Your task to perform on an android device: Clear the shopping cart on newegg. Search for macbook air on newegg, select the first entry, add it to the cart, then select checkout. Image 0: 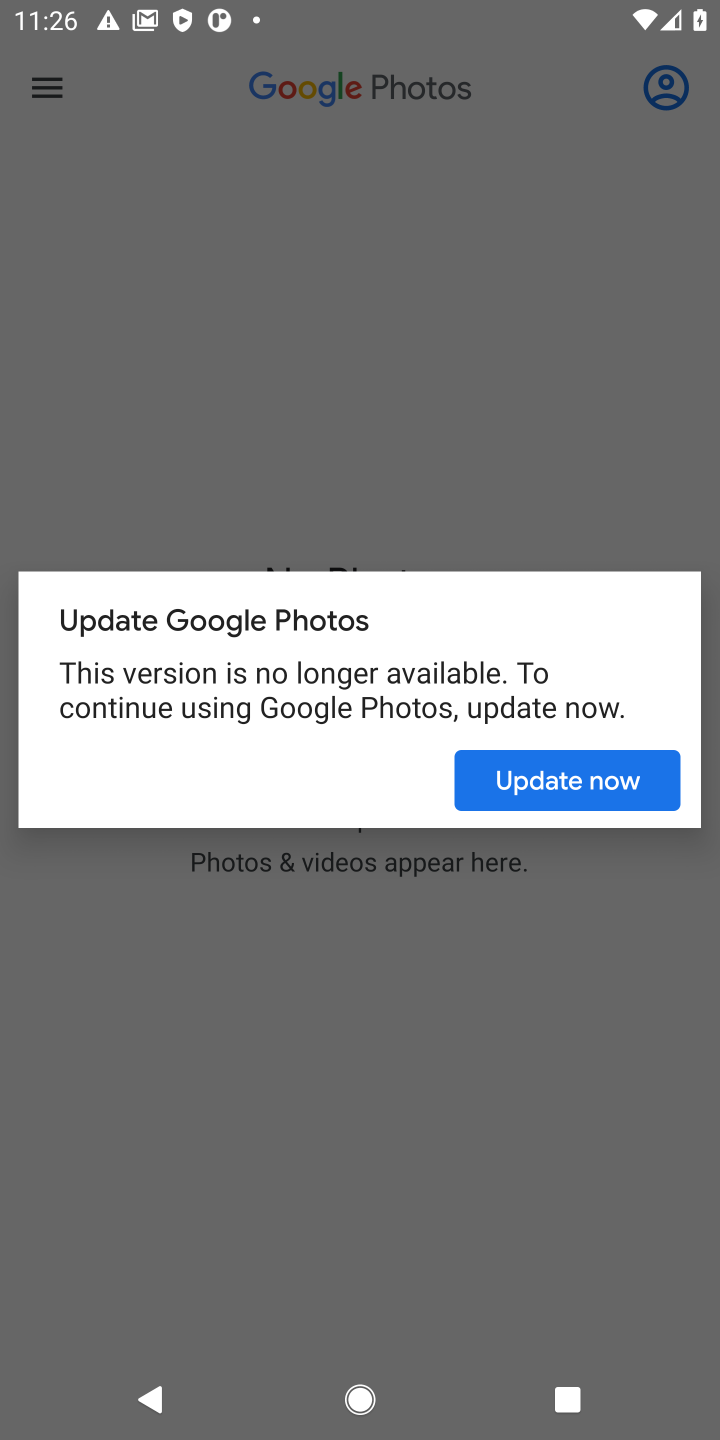
Step 0: press home button
Your task to perform on an android device: Clear the shopping cart on newegg. Search for macbook air on newegg, select the first entry, add it to the cart, then select checkout. Image 1: 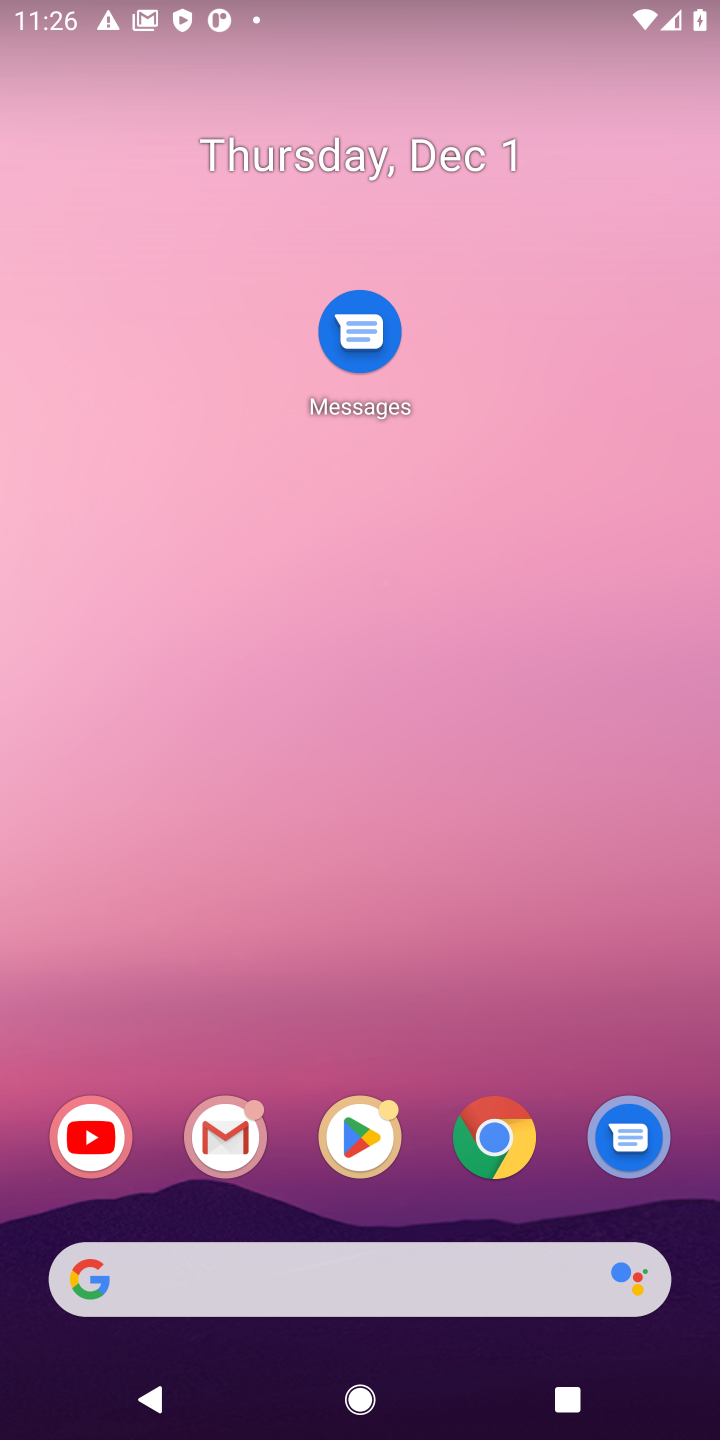
Step 1: drag from (383, 873) to (383, 452)
Your task to perform on an android device: Clear the shopping cart on newegg. Search for macbook air on newegg, select the first entry, add it to the cart, then select checkout. Image 2: 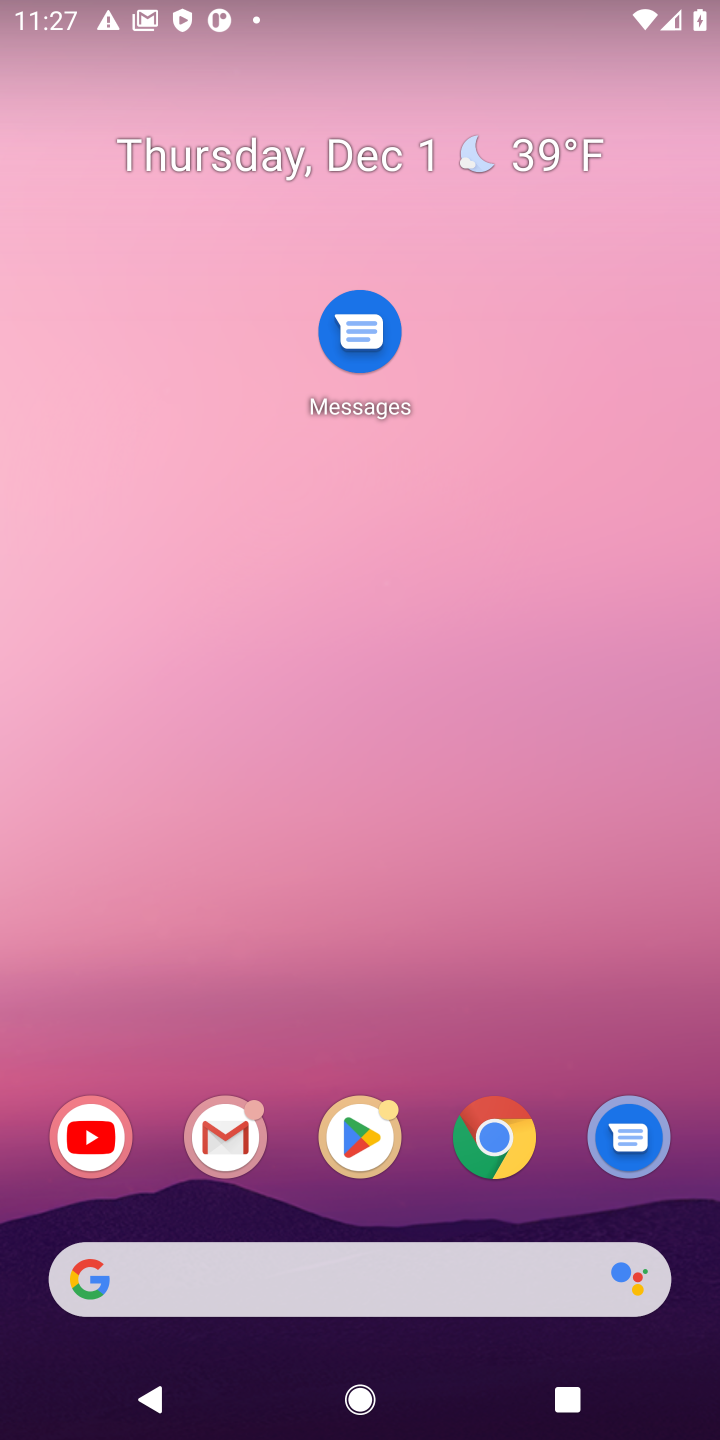
Step 2: drag from (358, 776) to (333, 441)
Your task to perform on an android device: Clear the shopping cart on newegg. Search for macbook air on newegg, select the first entry, add it to the cart, then select checkout. Image 3: 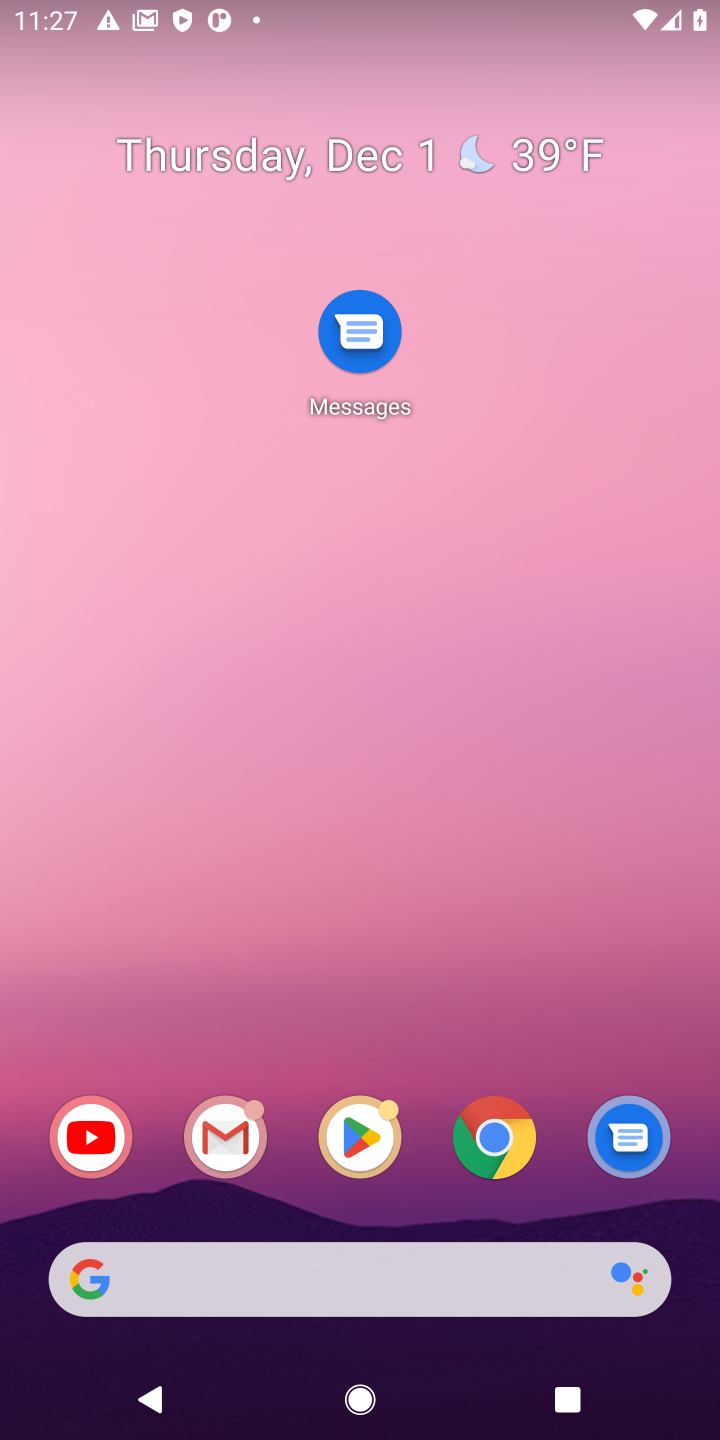
Step 3: drag from (310, 521) to (300, 329)
Your task to perform on an android device: Clear the shopping cart on newegg. Search for macbook air on newegg, select the first entry, add it to the cart, then select checkout. Image 4: 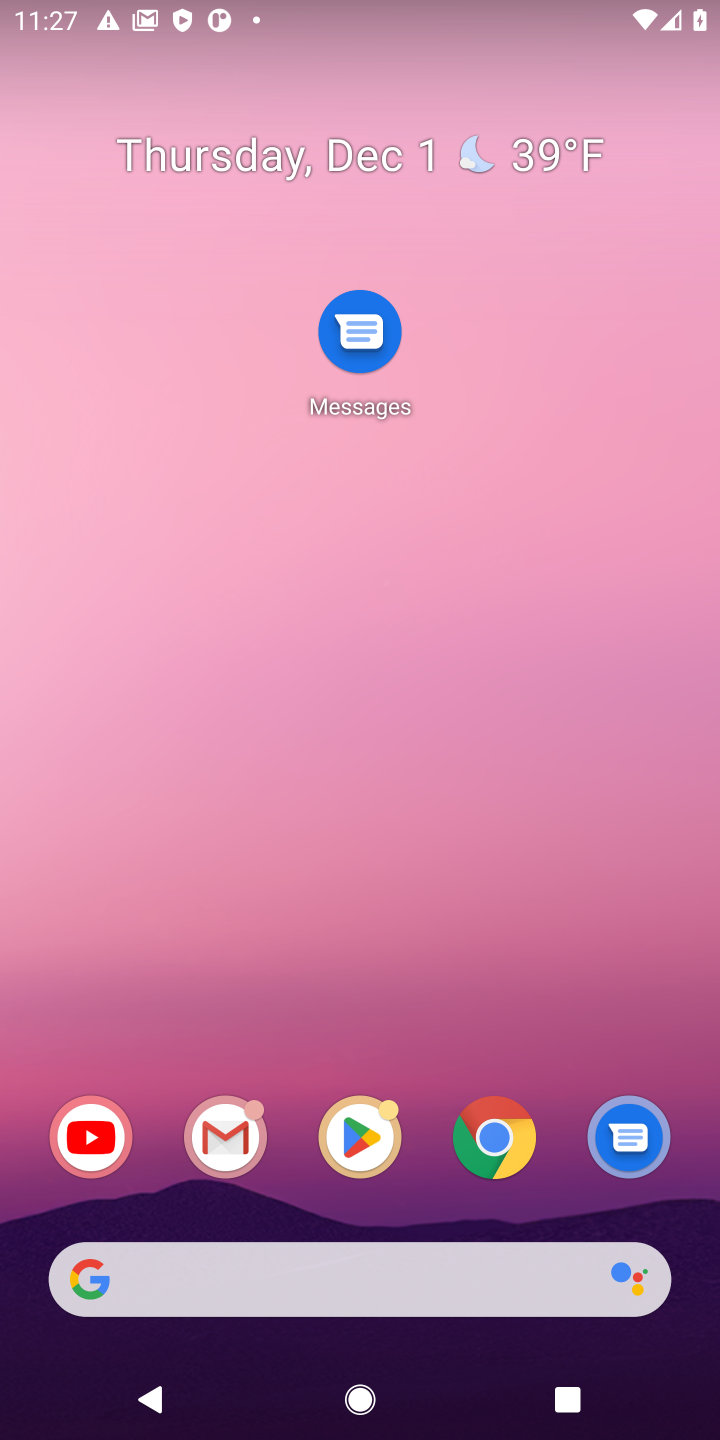
Step 4: drag from (324, 1240) to (336, 433)
Your task to perform on an android device: Clear the shopping cart on newegg. Search for macbook air on newegg, select the first entry, add it to the cart, then select checkout. Image 5: 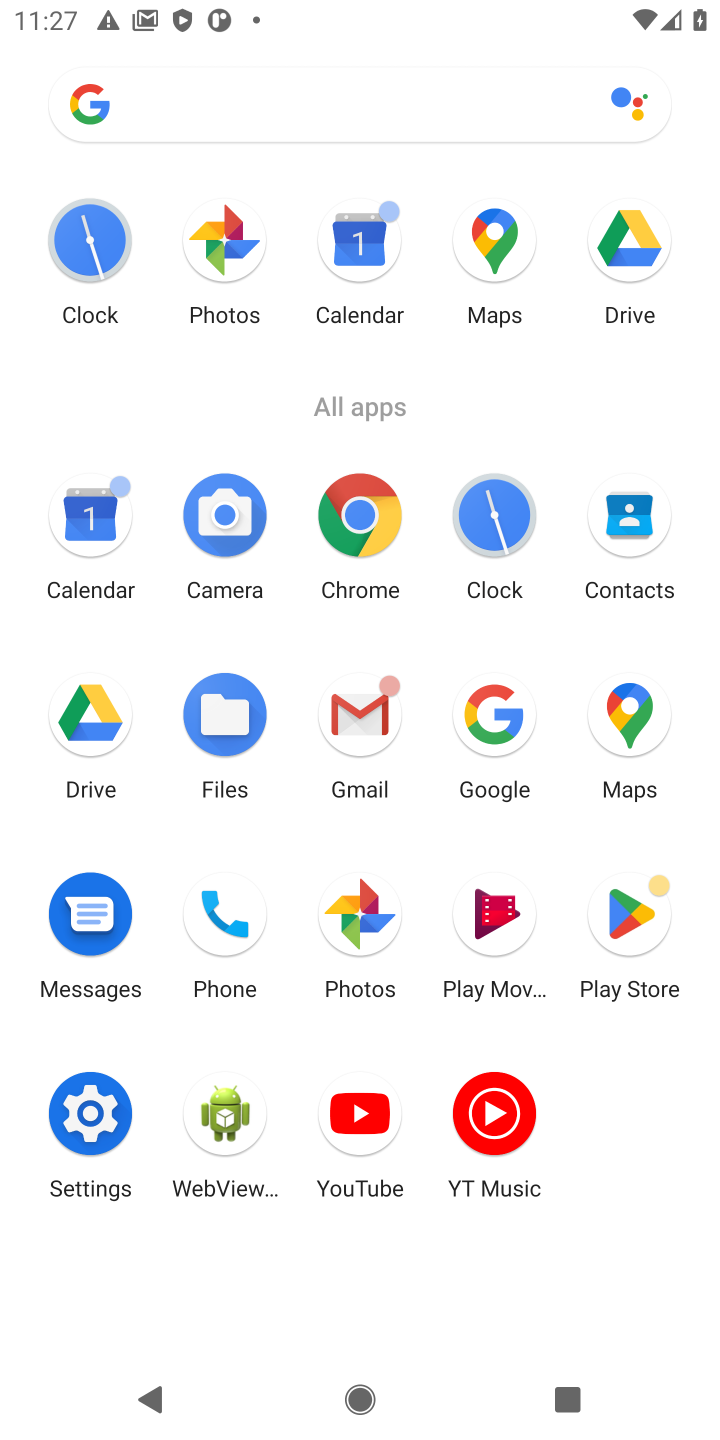
Step 5: click (518, 742)
Your task to perform on an android device: Clear the shopping cart on newegg. Search for macbook air on newegg, select the first entry, add it to the cart, then select checkout. Image 6: 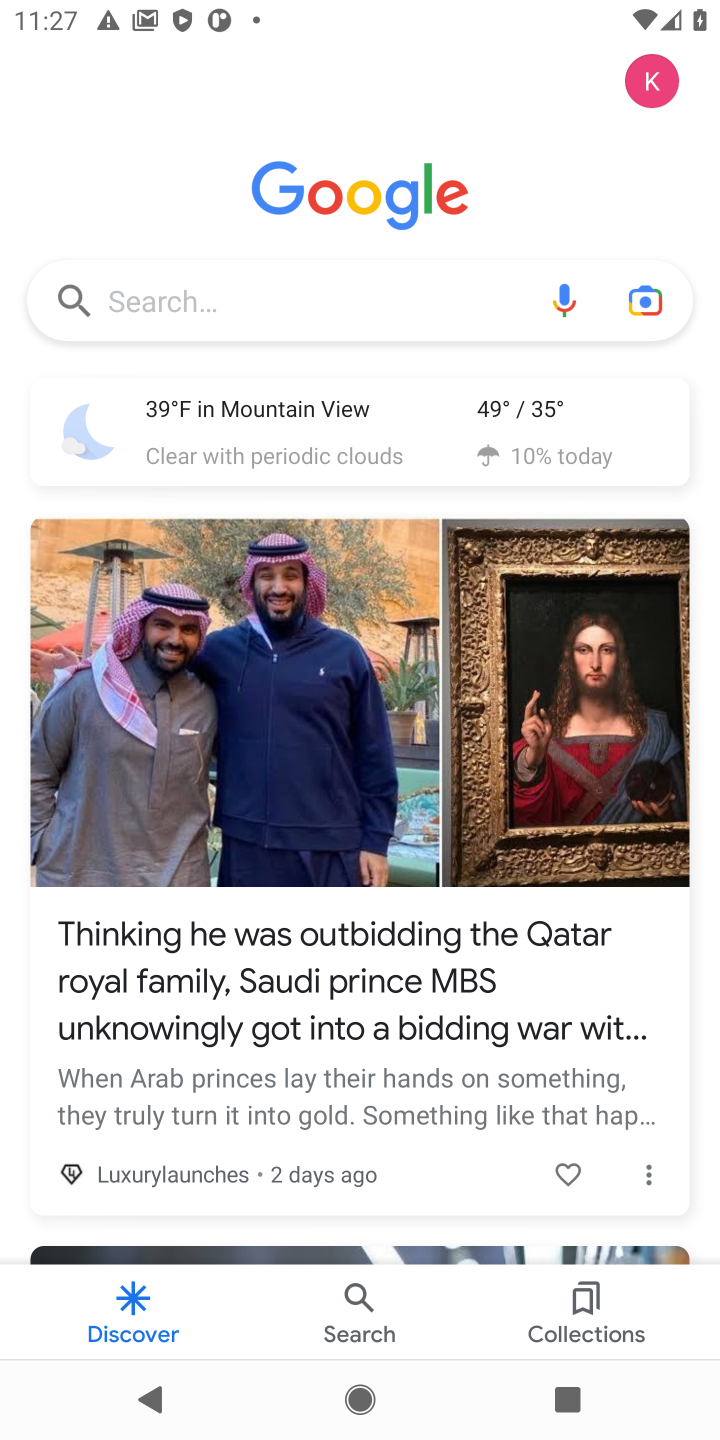
Step 6: click (293, 286)
Your task to perform on an android device: Clear the shopping cart on newegg. Search for macbook air on newegg, select the first entry, add it to the cart, then select checkout. Image 7: 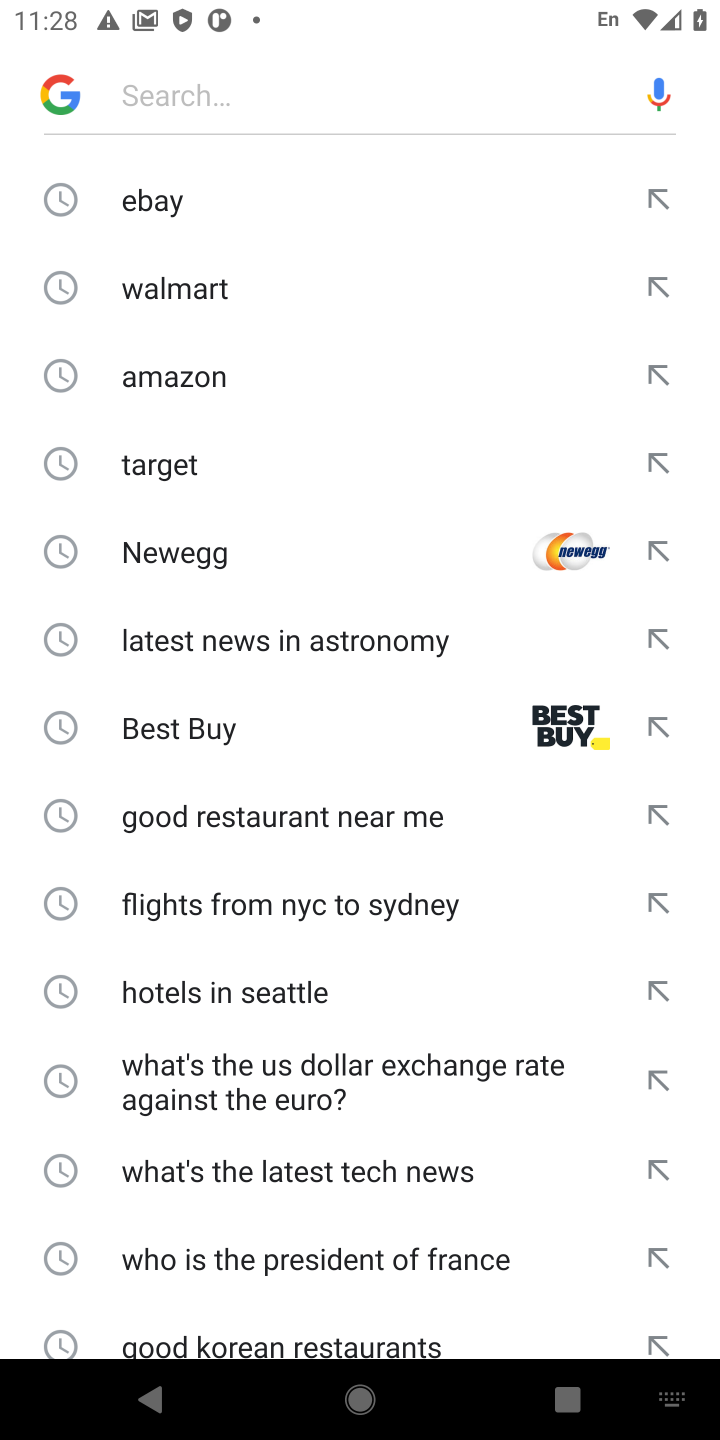
Step 7: click (185, 536)
Your task to perform on an android device: Clear the shopping cart on newegg. Search for macbook air on newegg, select the first entry, add it to the cart, then select checkout. Image 8: 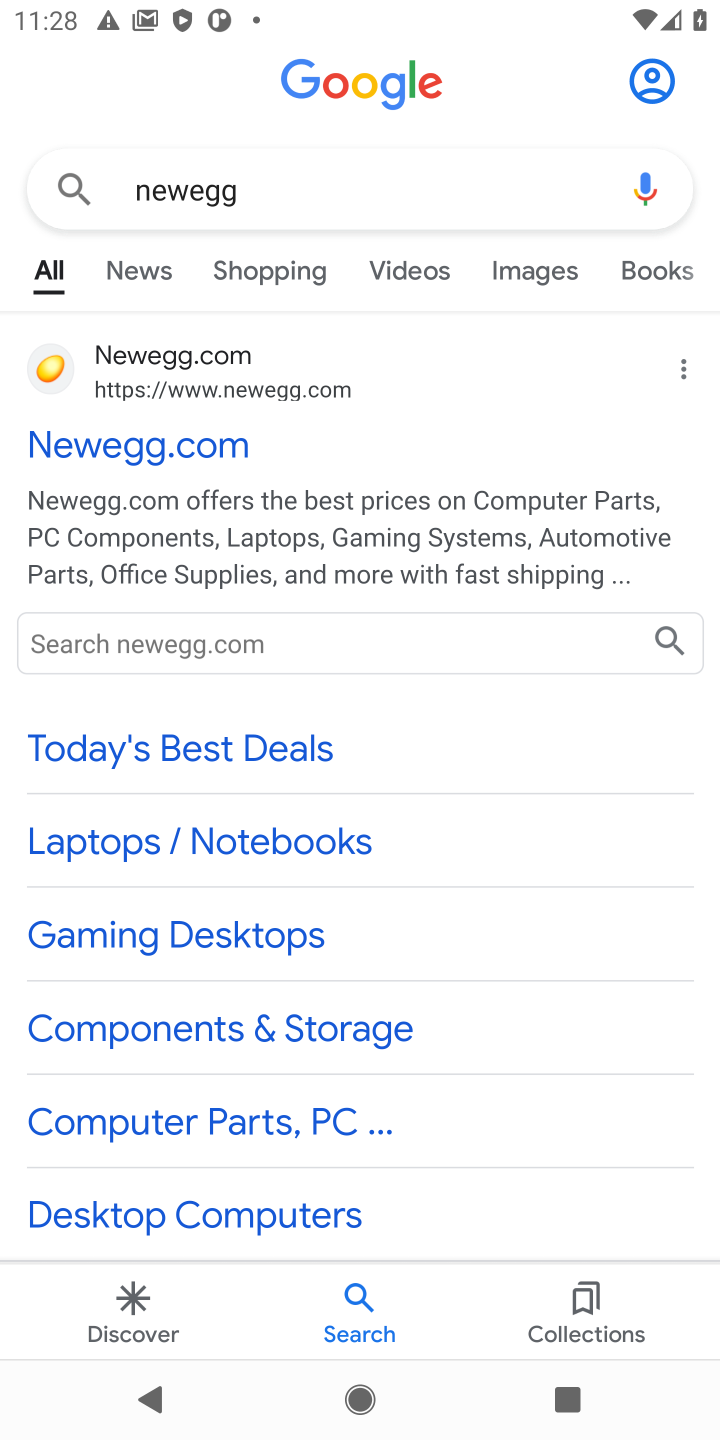
Step 8: click (141, 441)
Your task to perform on an android device: Clear the shopping cart on newegg. Search for macbook air on newegg, select the first entry, add it to the cart, then select checkout. Image 9: 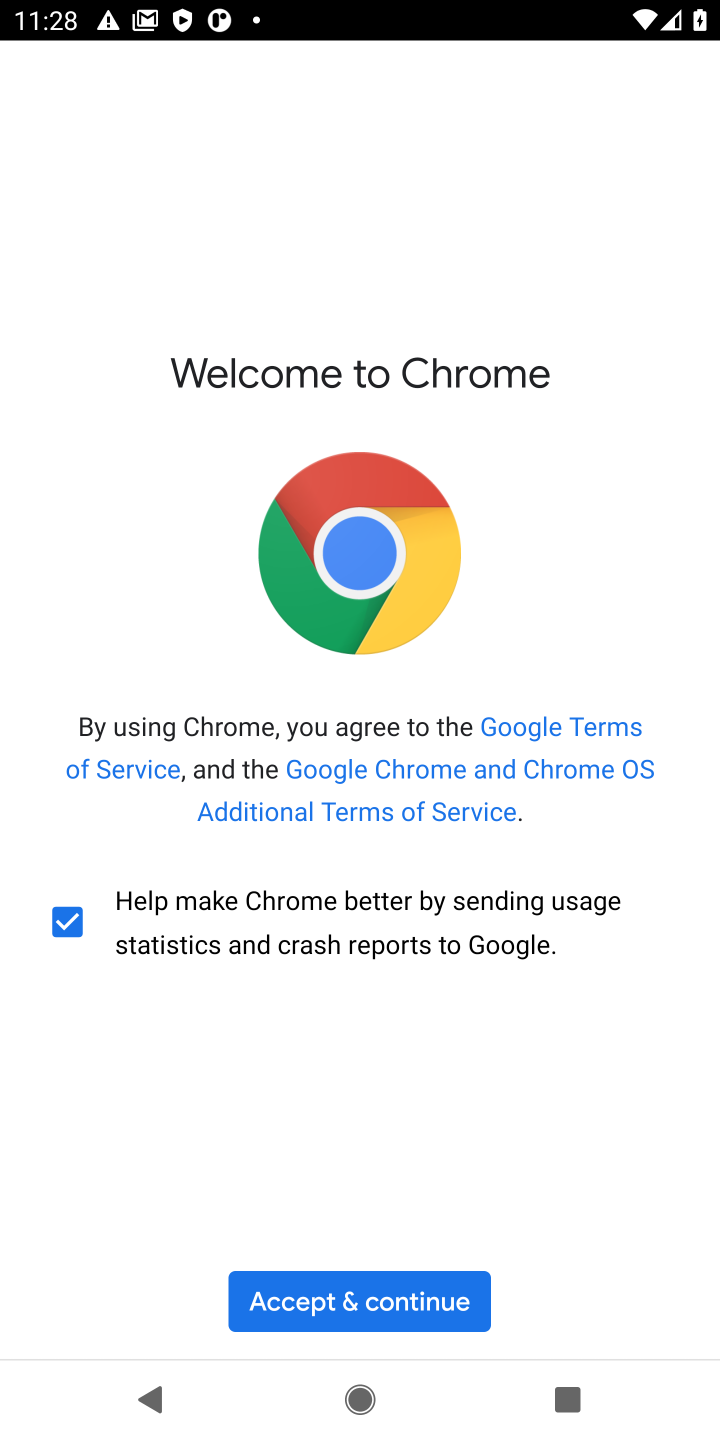
Step 9: click (285, 1308)
Your task to perform on an android device: Clear the shopping cart on newegg. Search for macbook air on newegg, select the first entry, add it to the cart, then select checkout. Image 10: 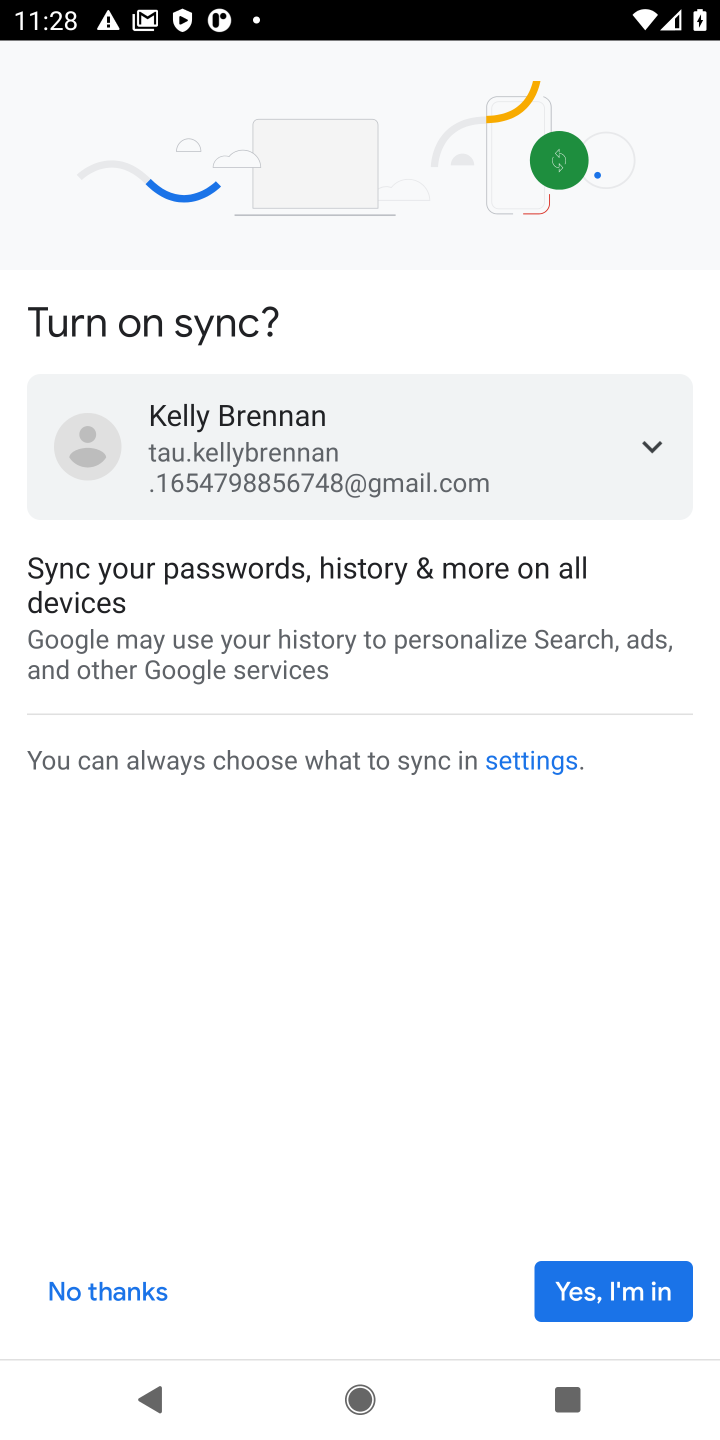
Step 10: click (578, 1297)
Your task to perform on an android device: Clear the shopping cart on newegg. Search for macbook air on newegg, select the first entry, add it to the cart, then select checkout. Image 11: 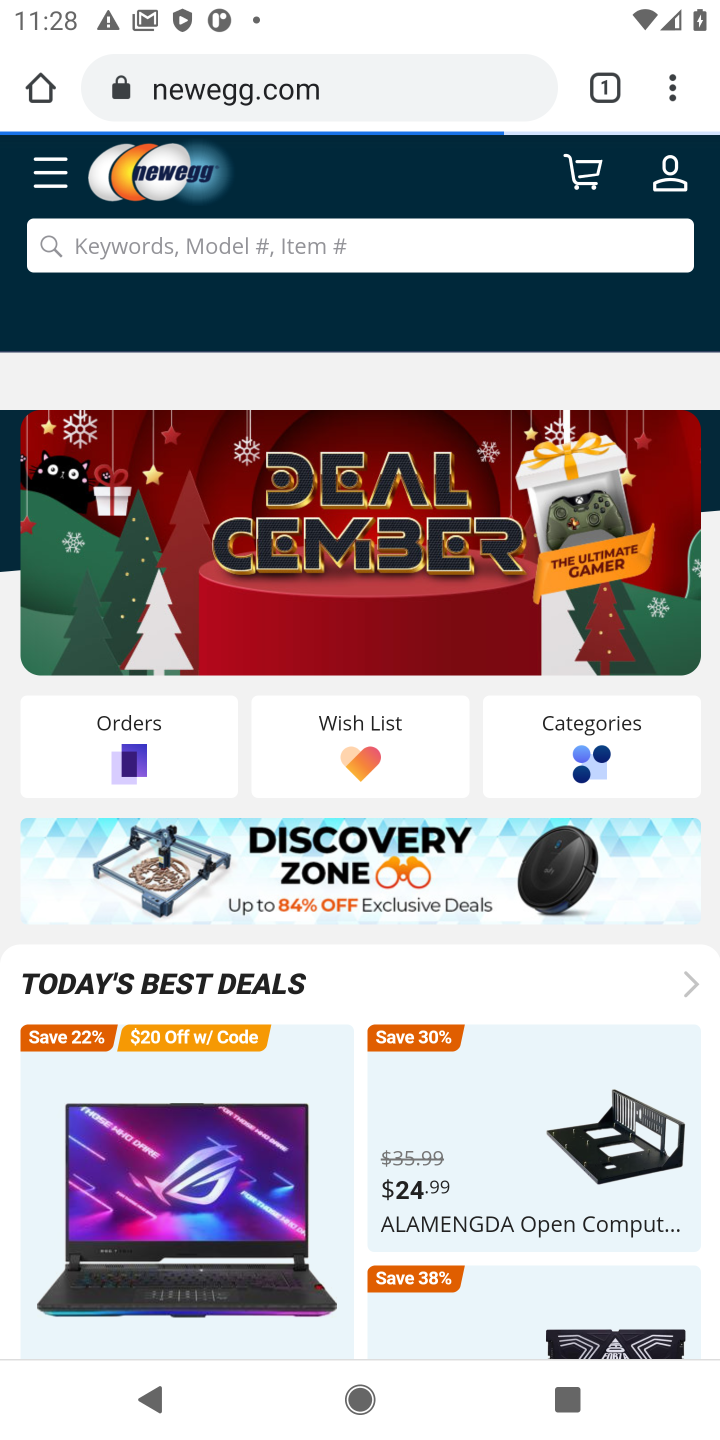
Step 11: click (227, 243)
Your task to perform on an android device: Clear the shopping cart on newegg. Search for macbook air on newegg, select the first entry, add it to the cart, then select checkout. Image 12: 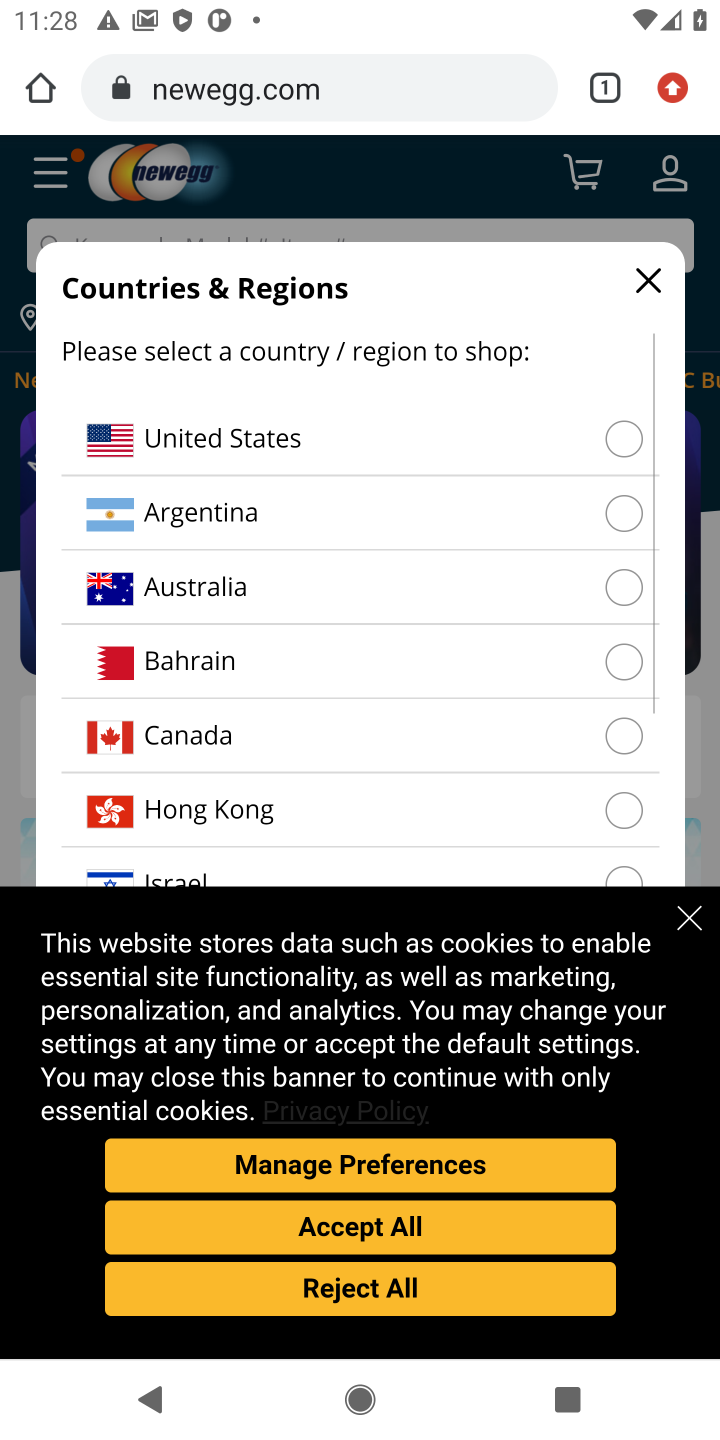
Step 12: click (635, 267)
Your task to perform on an android device: Clear the shopping cart on newegg. Search for macbook air on newegg, select the first entry, add it to the cart, then select checkout. Image 13: 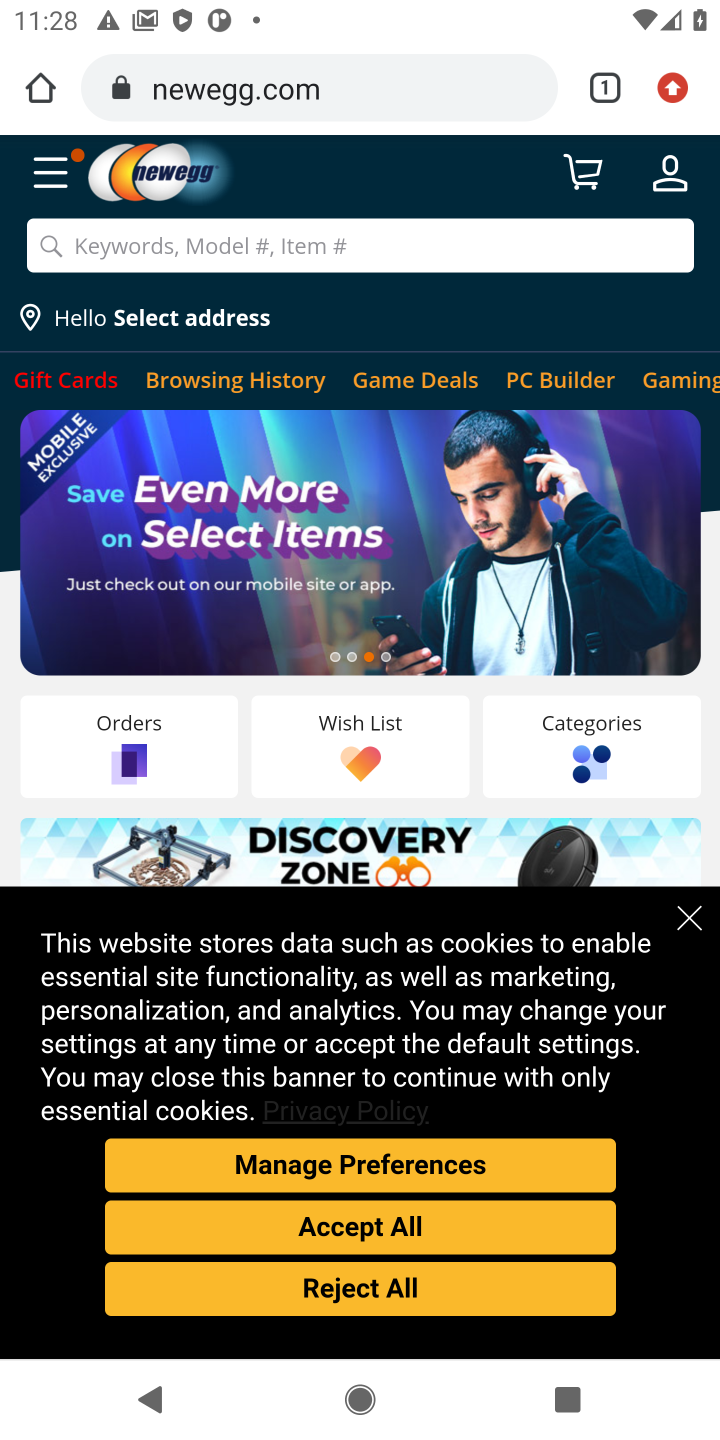
Step 13: click (653, 182)
Your task to perform on an android device: Clear the shopping cart on newegg. Search for macbook air on newegg, select the first entry, add it to the cart, then select checkout. Image 14: 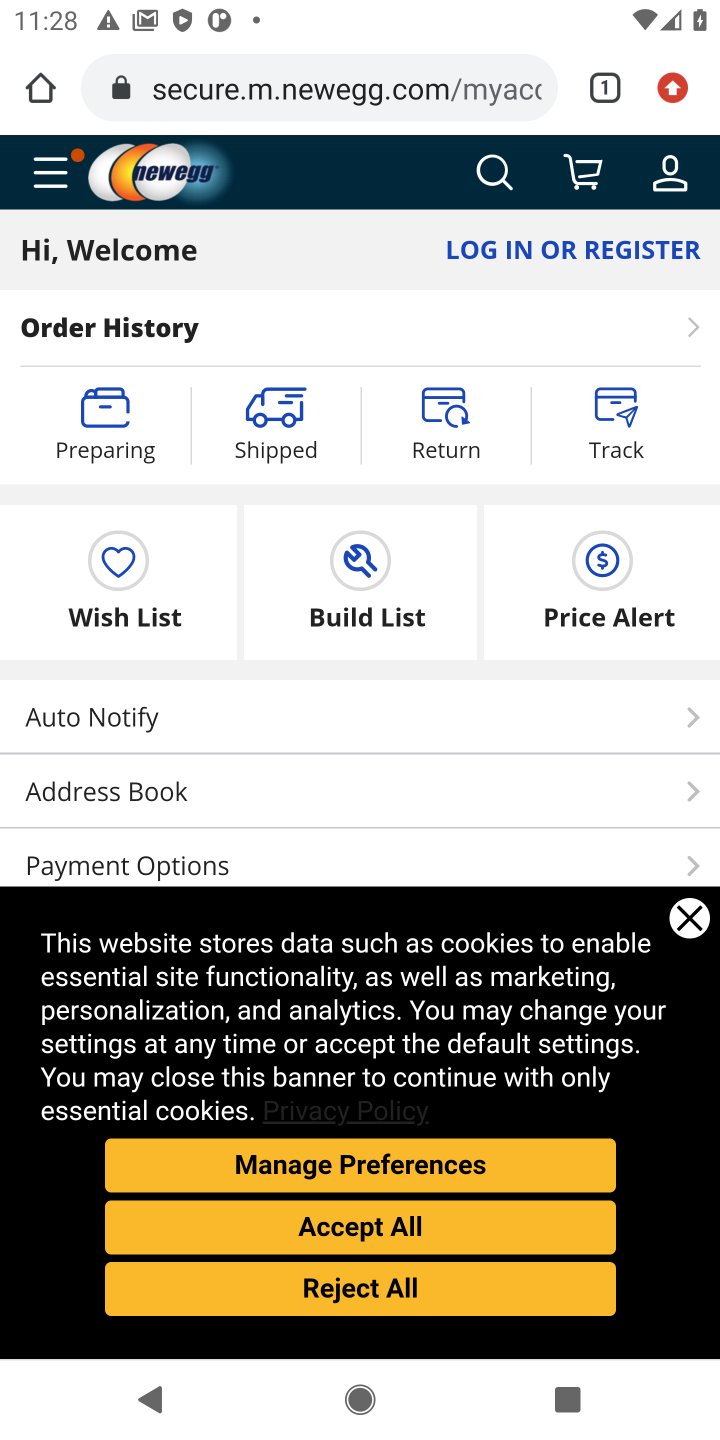
Step 14: click (486, 169)
Your task to perform on an android device: Clear the shopping cart on newegg. Search for macbook air on newegg, select the first entry, add it to the cart, then select checkout. Image 15: 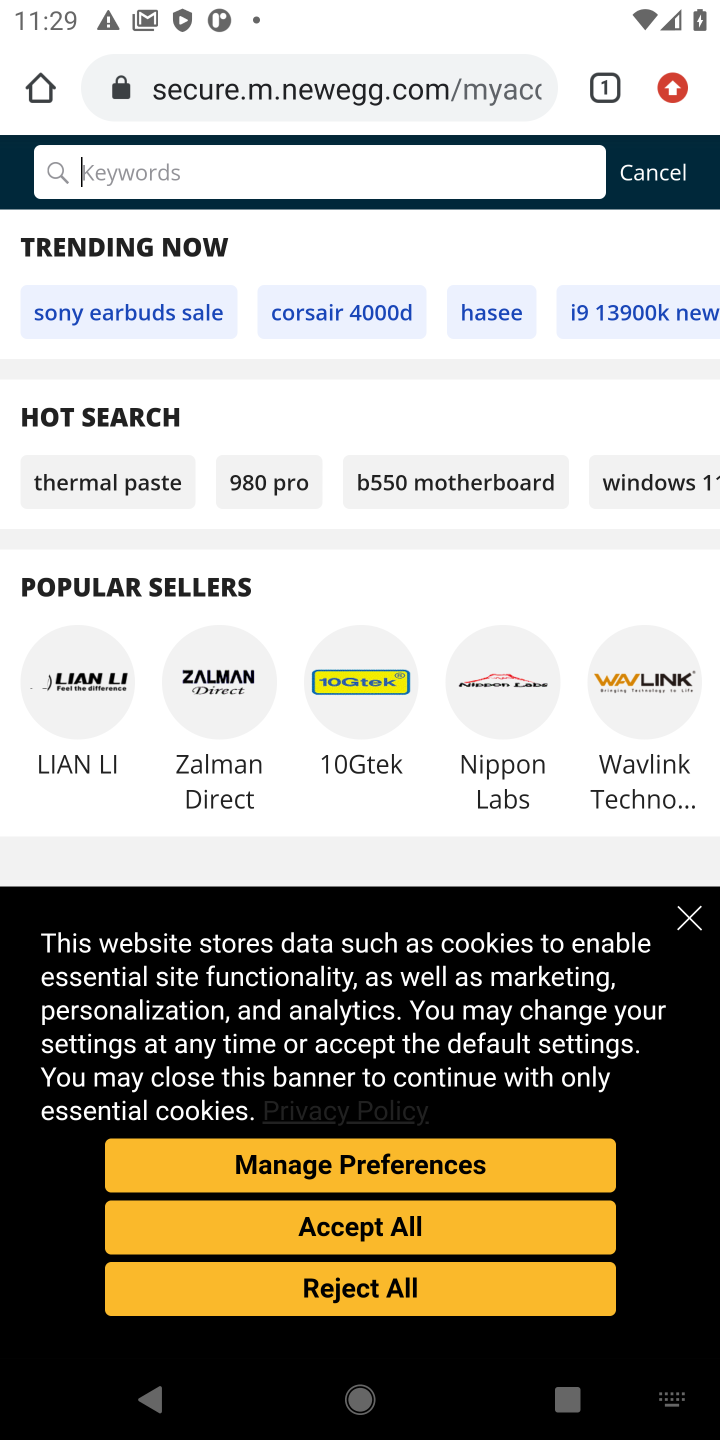
Step 15: type "macbook air"
Your task to perform on an android device: Clear the shopping cart on newegg. Search for macbook air on newegg, select the first entry, add it to the cart, then select checkout. Image 16: 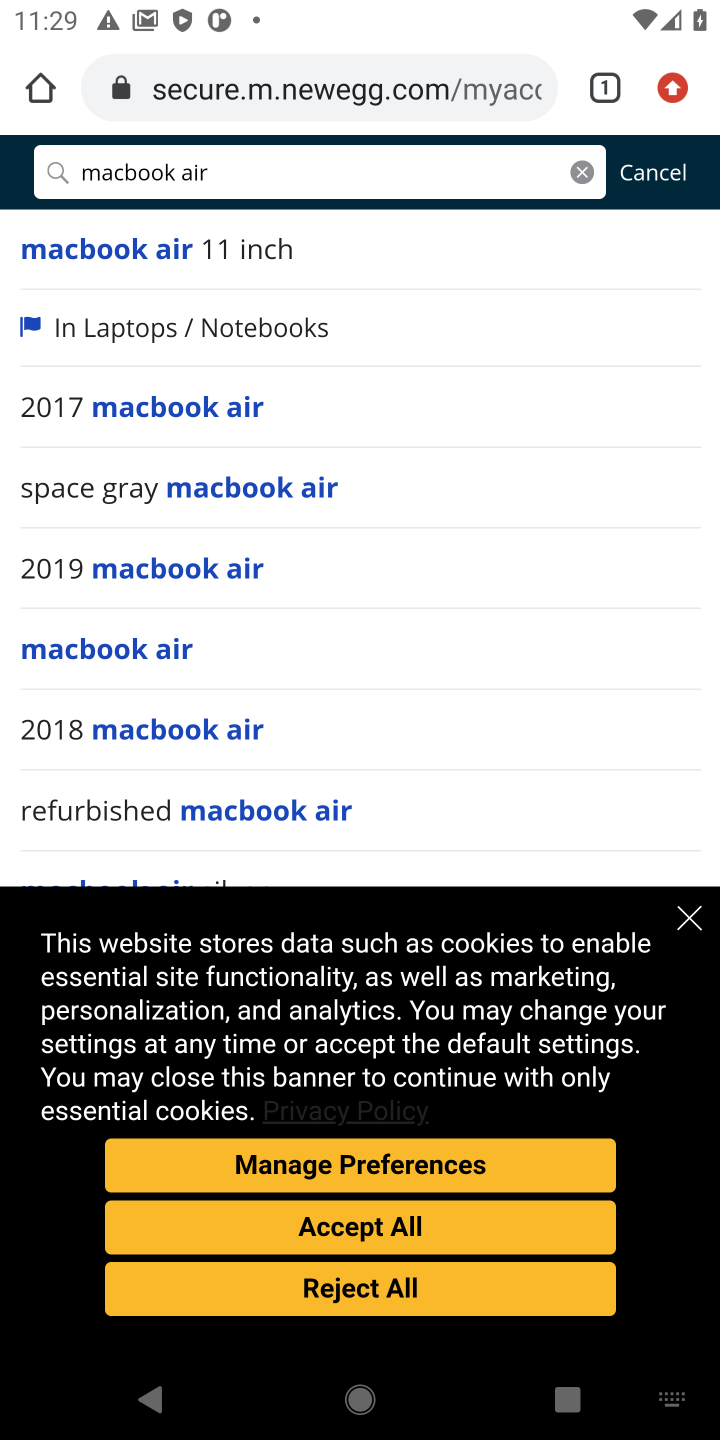
Step 16: click (214, 247)
Your task to perform on an android device: Clear the shopping cart on newegg. Search for macbook air on newegg, select the first entry, add it to the cart, then select checkout. Image 17: 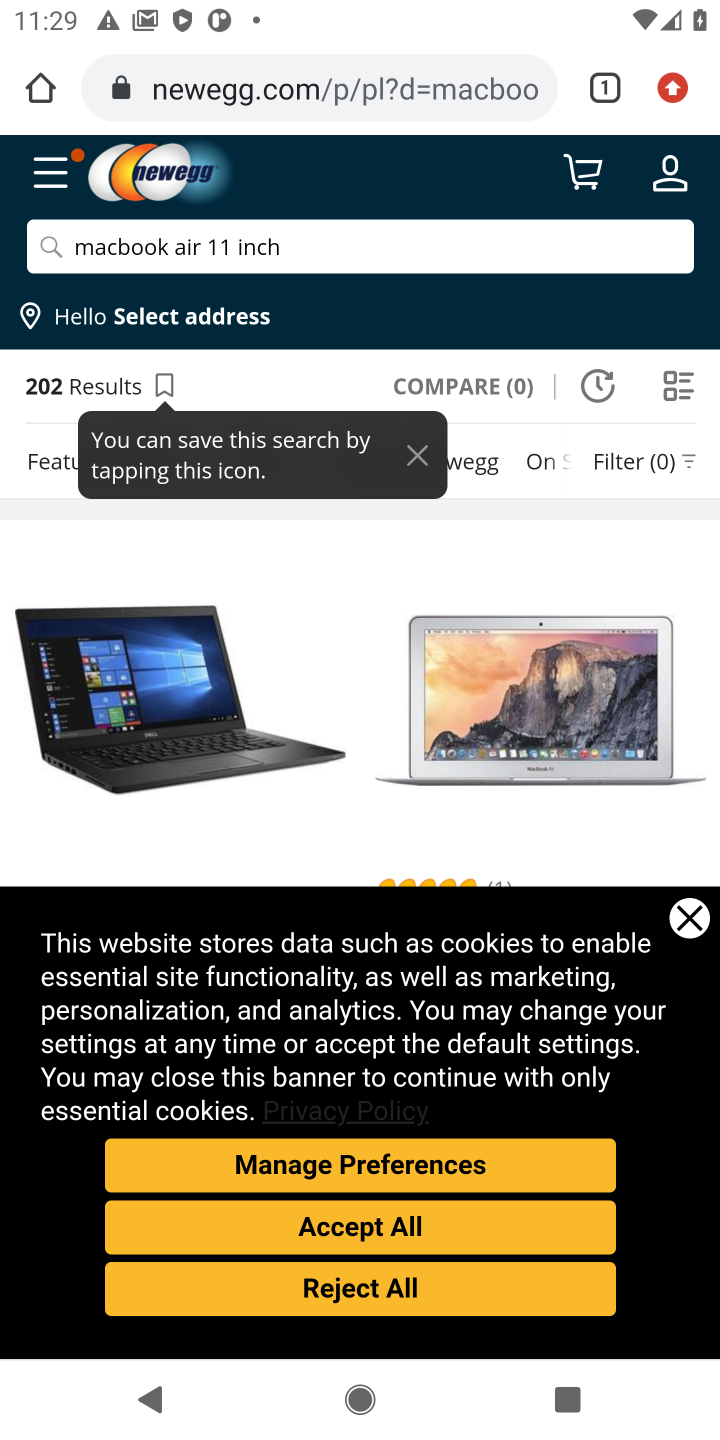
Step 17: click (695, 905)
Your task to perform on an android device: Clear the shopping cart on newegg. Search for macbook air on newegg, select the first entry, add it to the cart, then select checkout. Image 18: 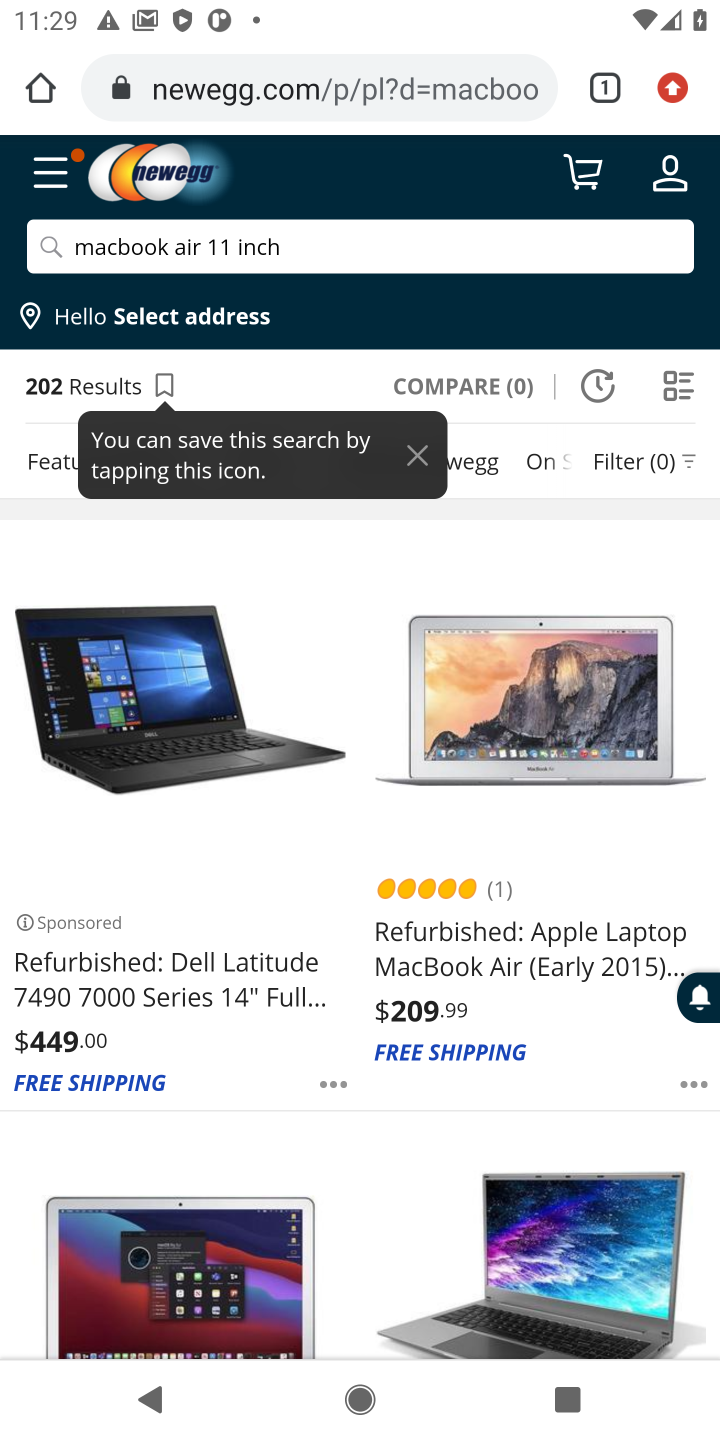
Step 18: click (180, 963)
Your task to perform on an android device: Clear the shopping cart on newegg. Search for macbook air on newegg, select the first entry, add it to the cart, then select checkout. Image 19: 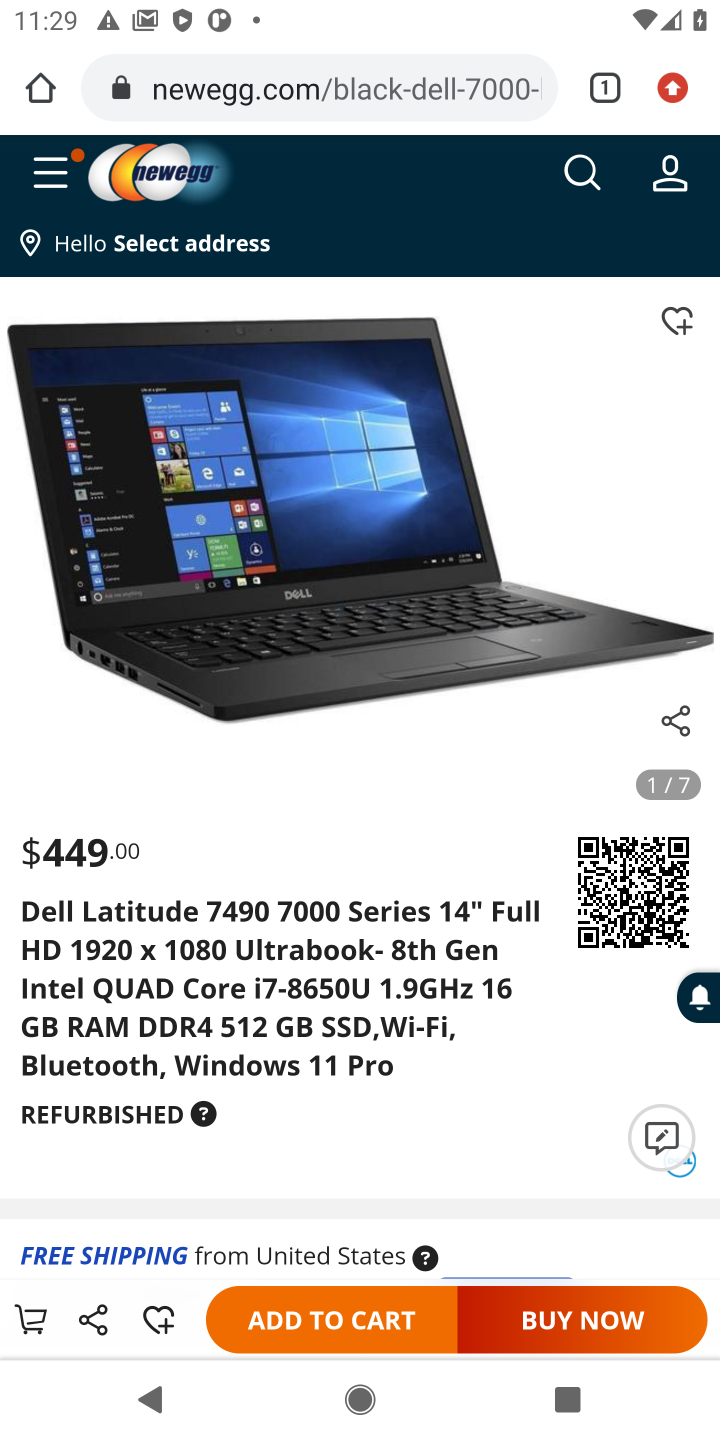
Step 19: click (293, 1317)
Your task to perform on an android device: Clear the shopping cart on newegg. Search for macbook air on newegg, select the first entry, add it to the cart, then select checkout. Image 20: 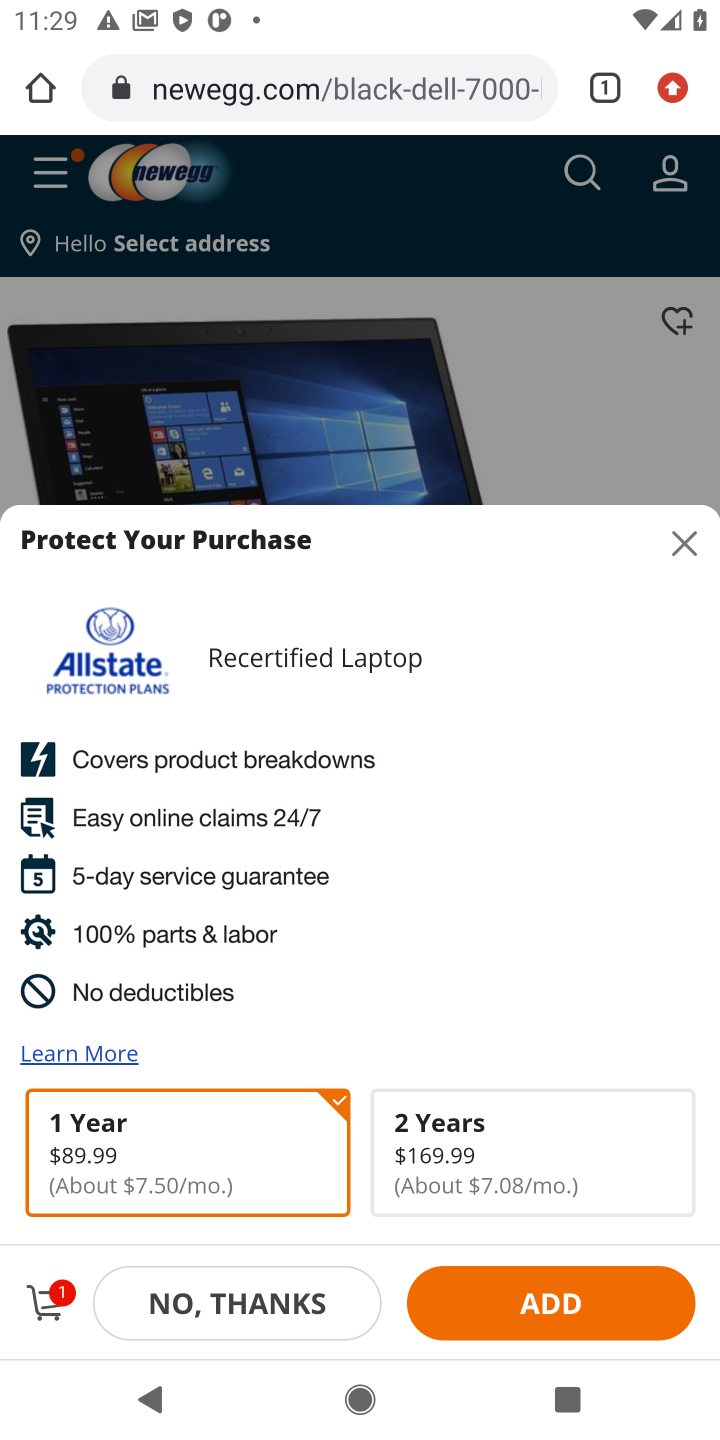
Step 20: click (547, 1292)
Your task to perform on an android device: Clear the shopping cart on newegg. Search for macbook air on newegg, select the first entry, add it to the cart, then select checkout. Image 21: 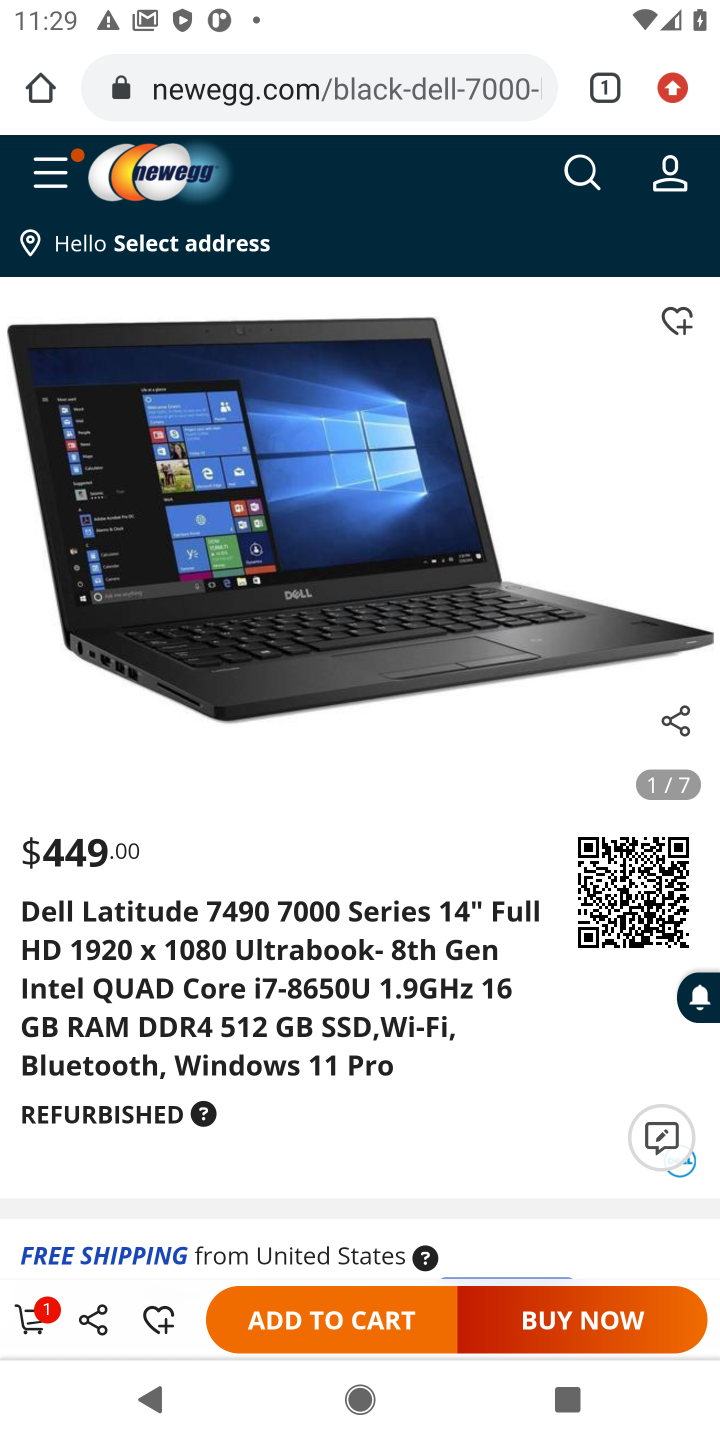
Step 21: task complete